Your task to perform on an android device: What's the weather going to be tomorrow? Image 0: 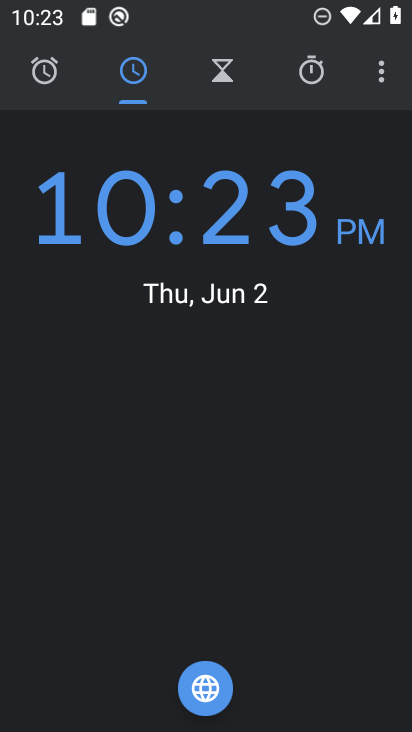
Step 0: press home button
Your task to perform on an android device: What's the weather going to be tomorrow? Image 1: 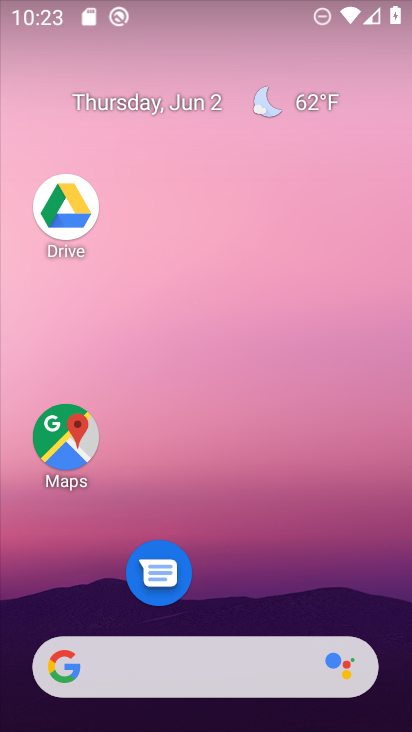
Step 1: click (171, 651)
Your task to perform on an android device: What's the weather going to be tomorrow? Image 2: 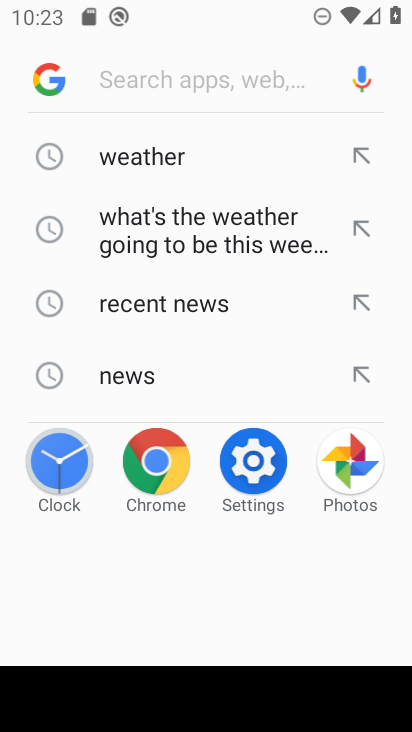
Step 2: click (105, 149)
Your task to perform on an android device: What's the weather going to be tomorrow? Image 3: 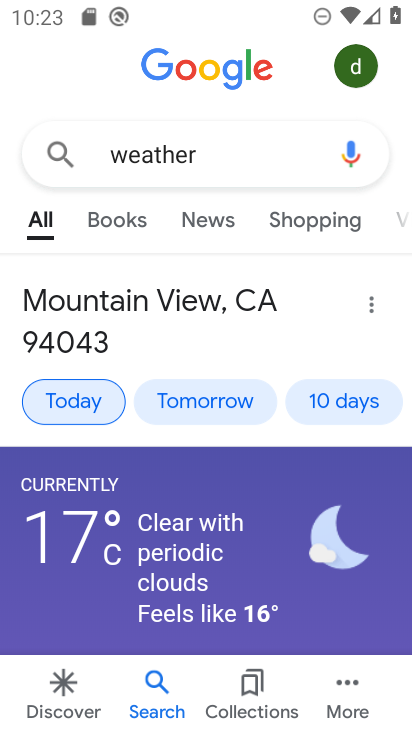
Step 3: click (202, 407)
Your task to perform on an android device: What's the weather going to be tomorrow? Image 4: 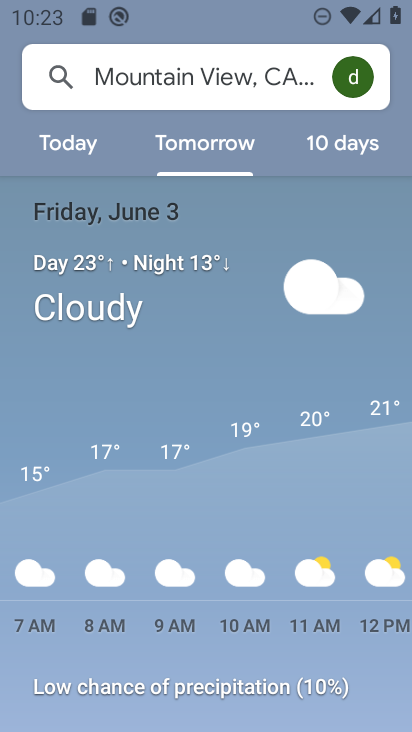
Step 4: task complete